Your task to perform on an android device: Open maps Image 0: 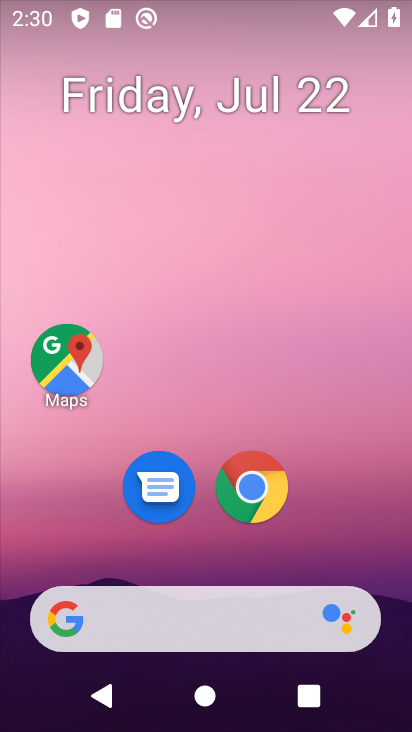
Step 0: click (71, 358)
Your task to perform on an android device: Open maps Image 1: 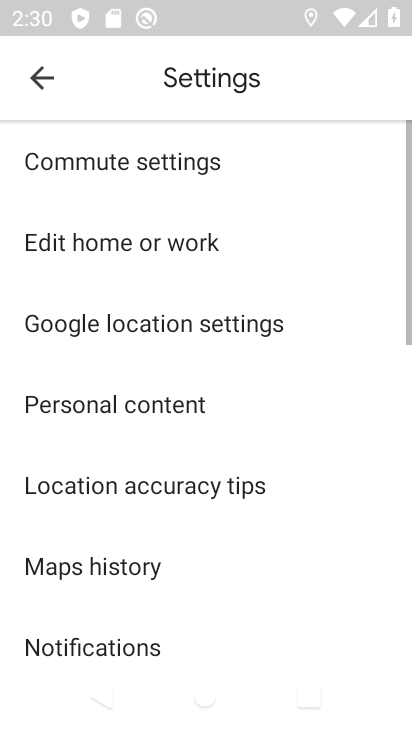
Step 1: click (64, 75)
Your task to perform on an android device: Open maps Image 2: 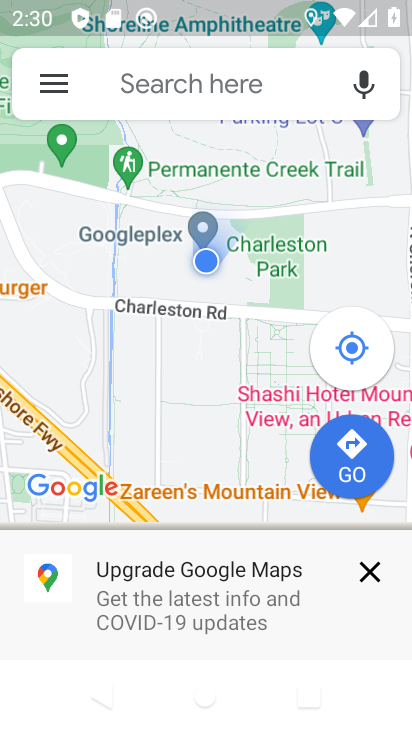
Step 2: task complete